Your task to perform on an android device: set default search engine in the chrome app Image 0: 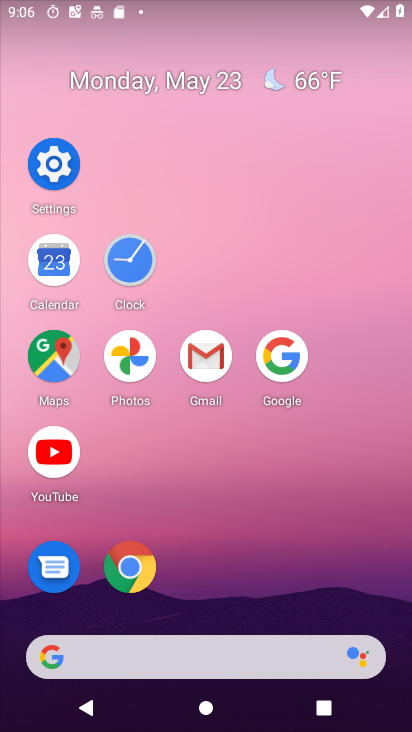
Step 0: click (152, 561)
Your task to perform on an android device: set default search engine in the chrome app Image 1: 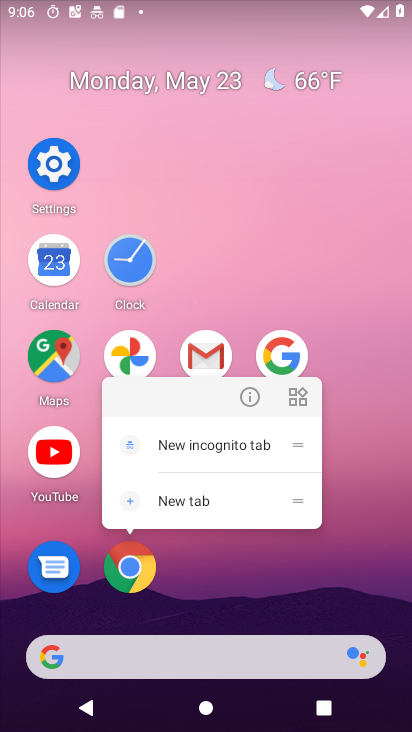
Step 1: click (147, 561)
Your task to perform on an android device: set default search engine in the chrome app Image 2: 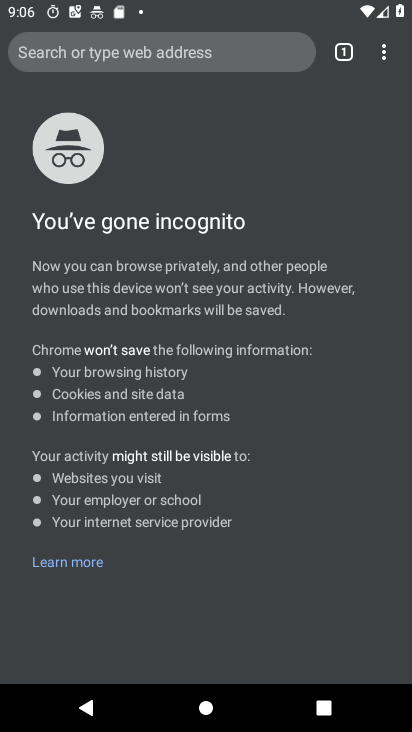
Step 2: click (383, 61)
Your task to perform on an android device: set default search engine in the chrome app Image 3: 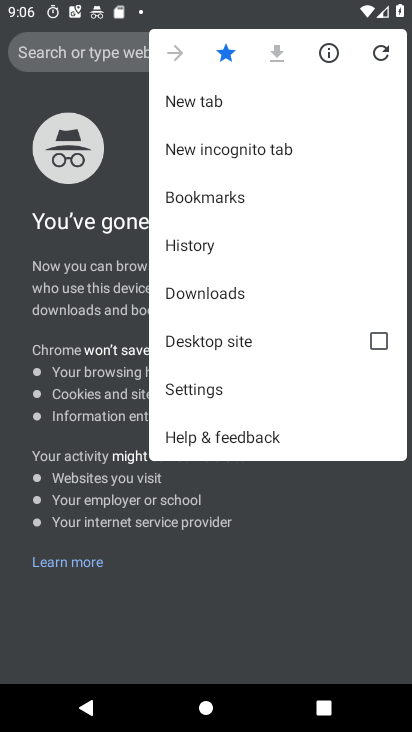
Step 3: click (261, 379)
Your task to perform on an android device: set default search engine in the chrome app Image 4: 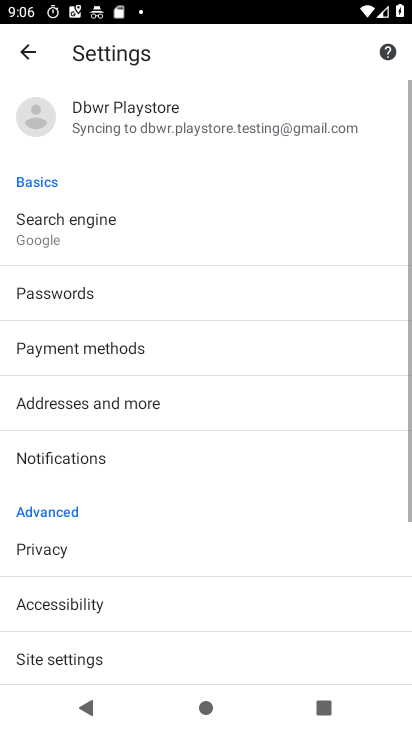
Step 4: drag from (287, 355) to (276, 167)
Your task to perform on an android device: set default search engine in the chrome app Image 5: 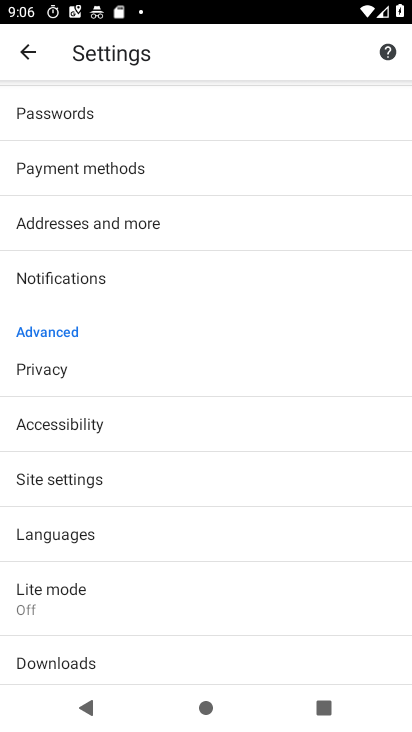
Step 5: drag from (153, 207) to (165, 464)
Your task to perform on an android device: set default search engine in the chrome app Image 6: 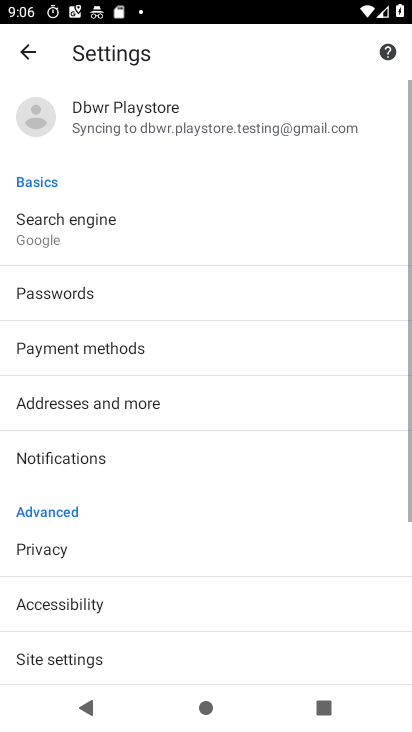
Step 6: click (103, 224)
Your task to perform on an android device: set default search engine in the chrome app Image 7: 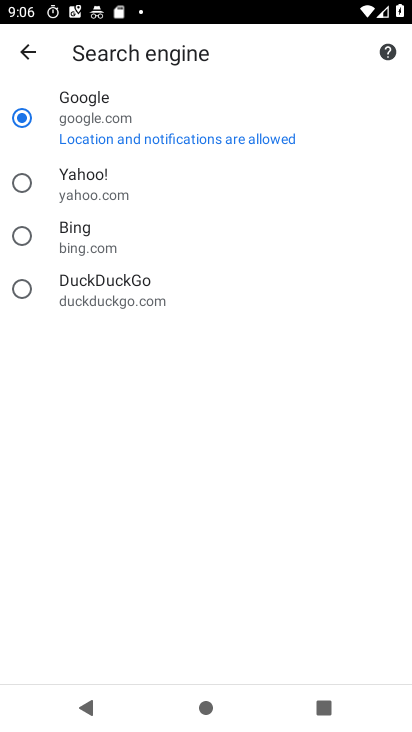
Step 7: task complete